Your task to perform on an android device: Add "panasonic triple a" to the cart on newegg Image 0: 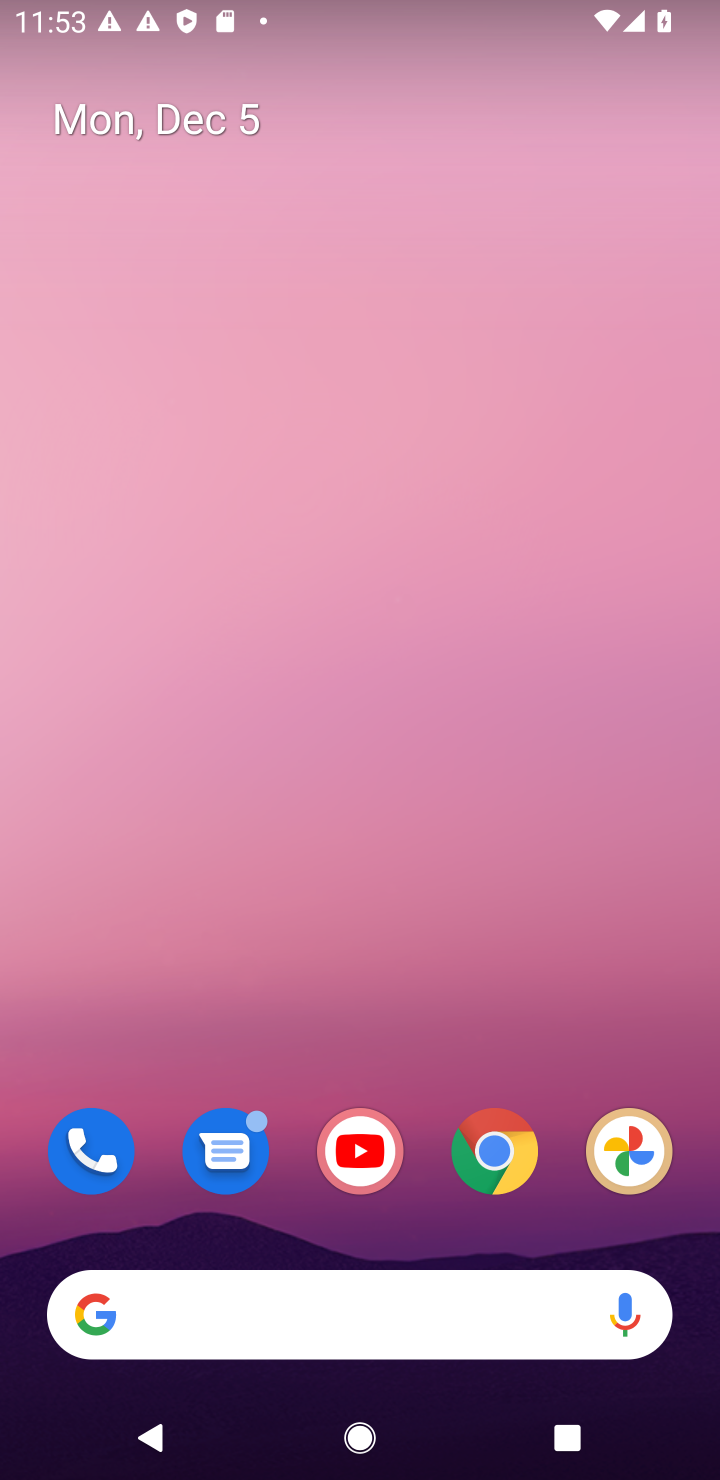
Step 0: click (487, 1165)
Your task to perform on an android device: Add "panasonic triple a" to the cart on newegg Image 1: 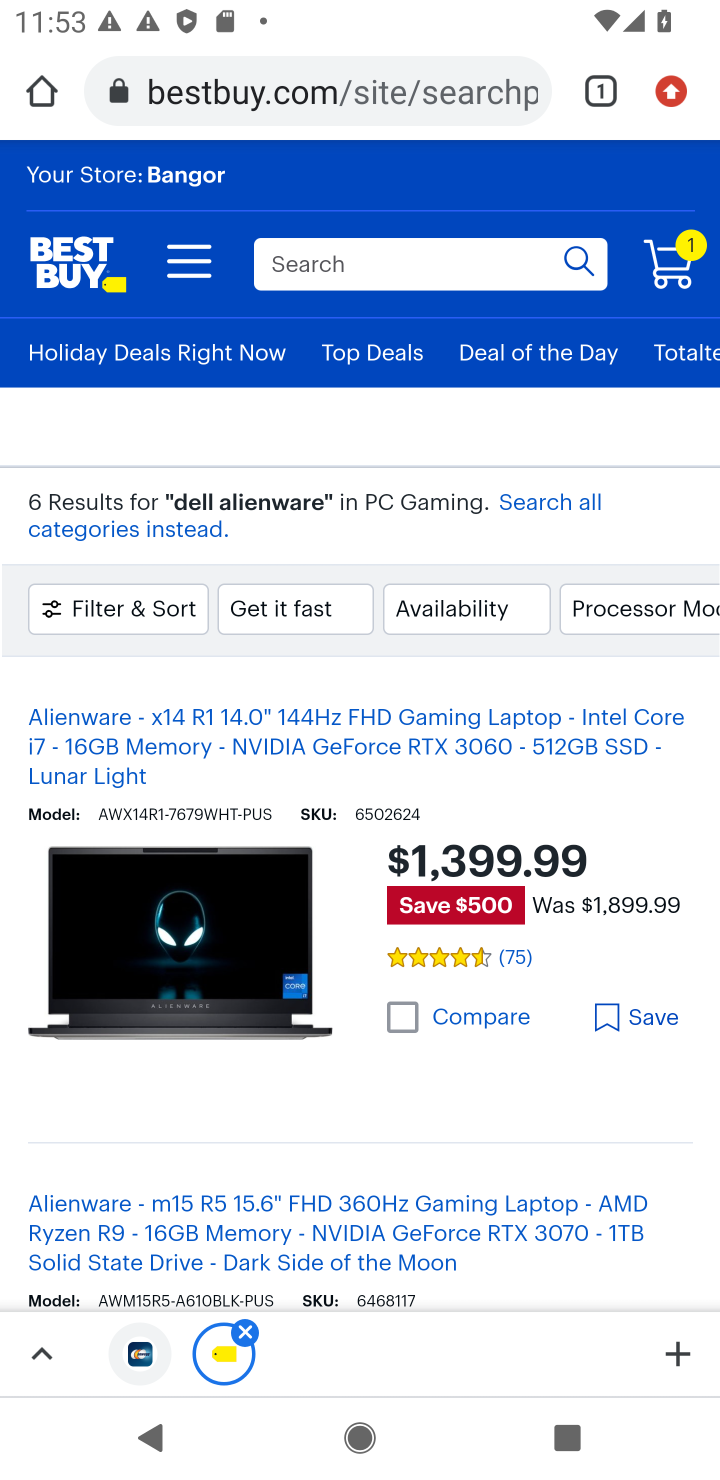
Step 1: click (265, 85)
Your task to perform on an android device: Add "panasonic triple a" to the cart on newegg Image 2: 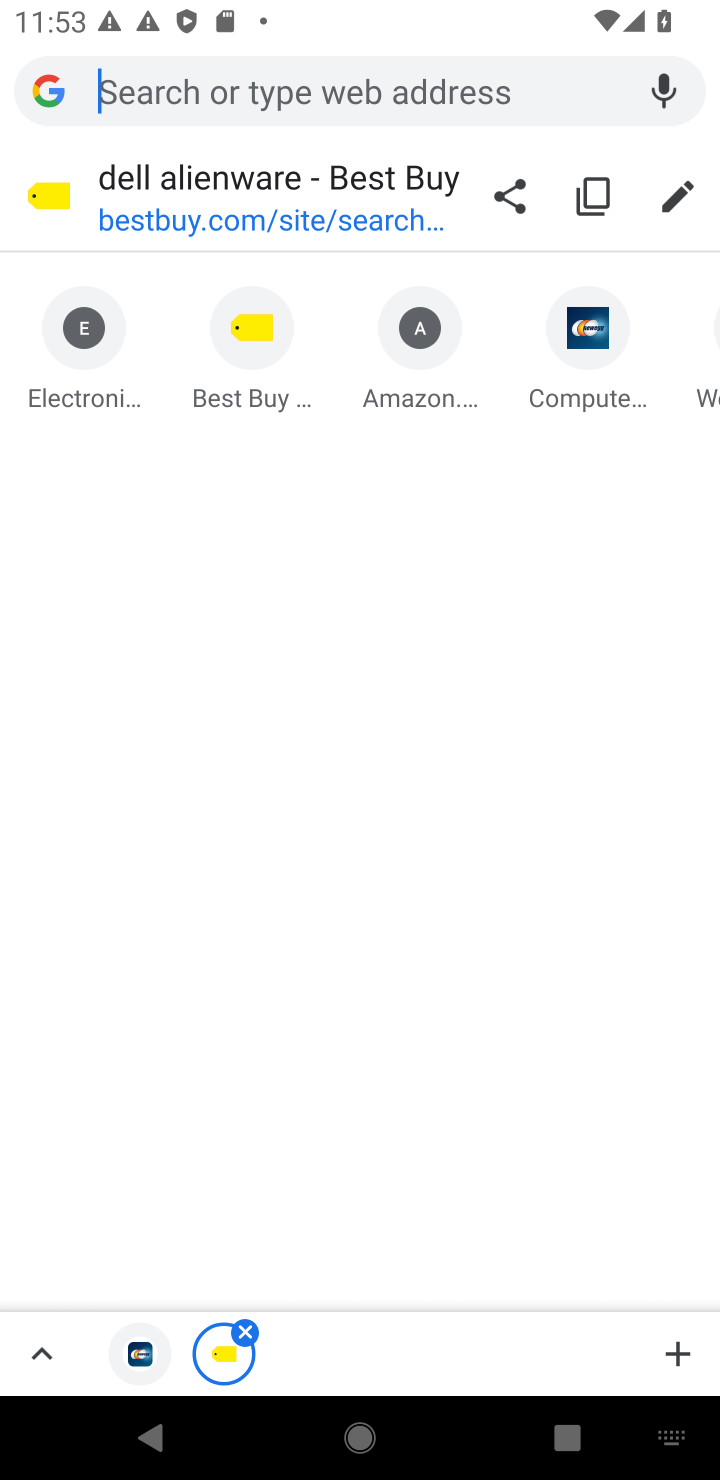
Step 2: click (594, 385)
Your task to perform on an android device: Add "panasonic triple a" to the cart on newegg Image 3: 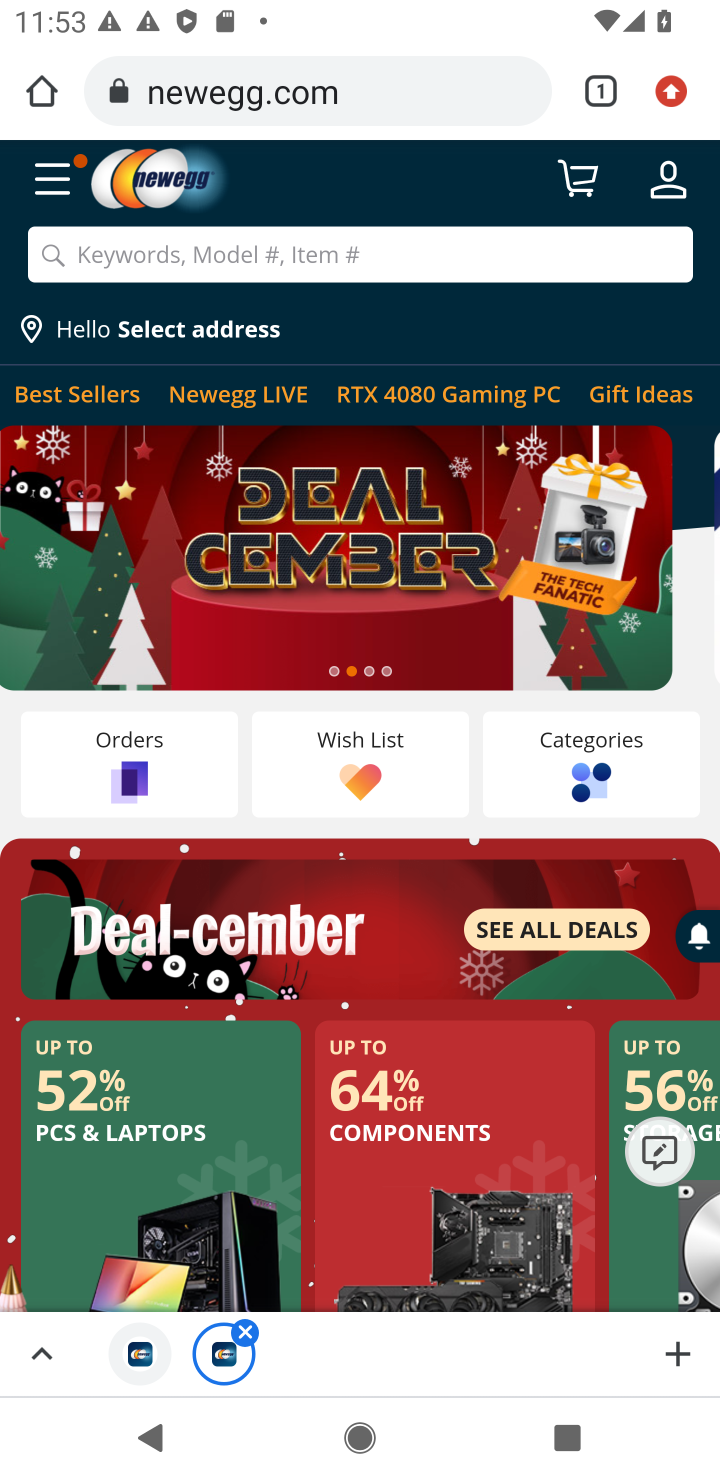
Step 3: click (190, 269)
Your task to perform on an android device: Add "panasonic triple a" to the cart on newegg Image 4: 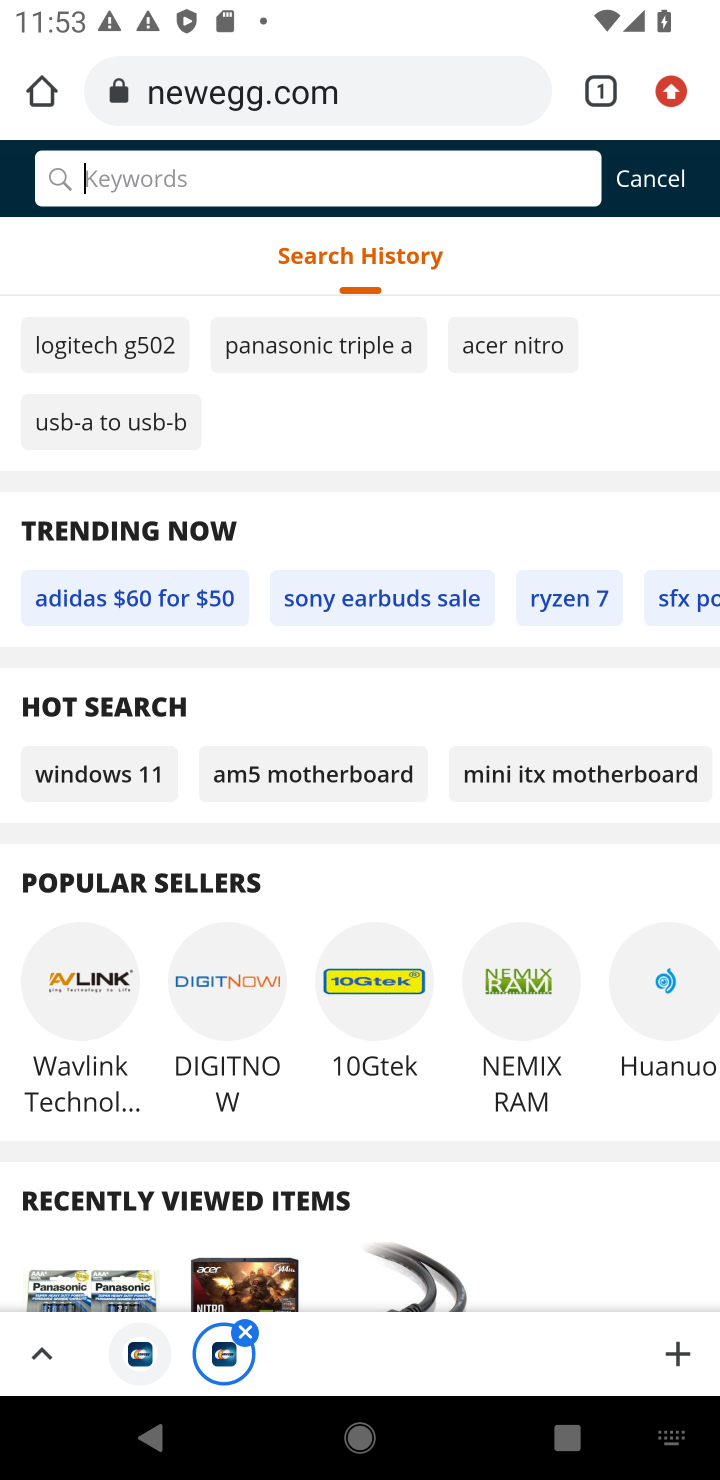
Step 4: type "panasonic triple a"
Your task to perform on an android device: Add "panasonic triple a" to the cart on newegg Image 5: 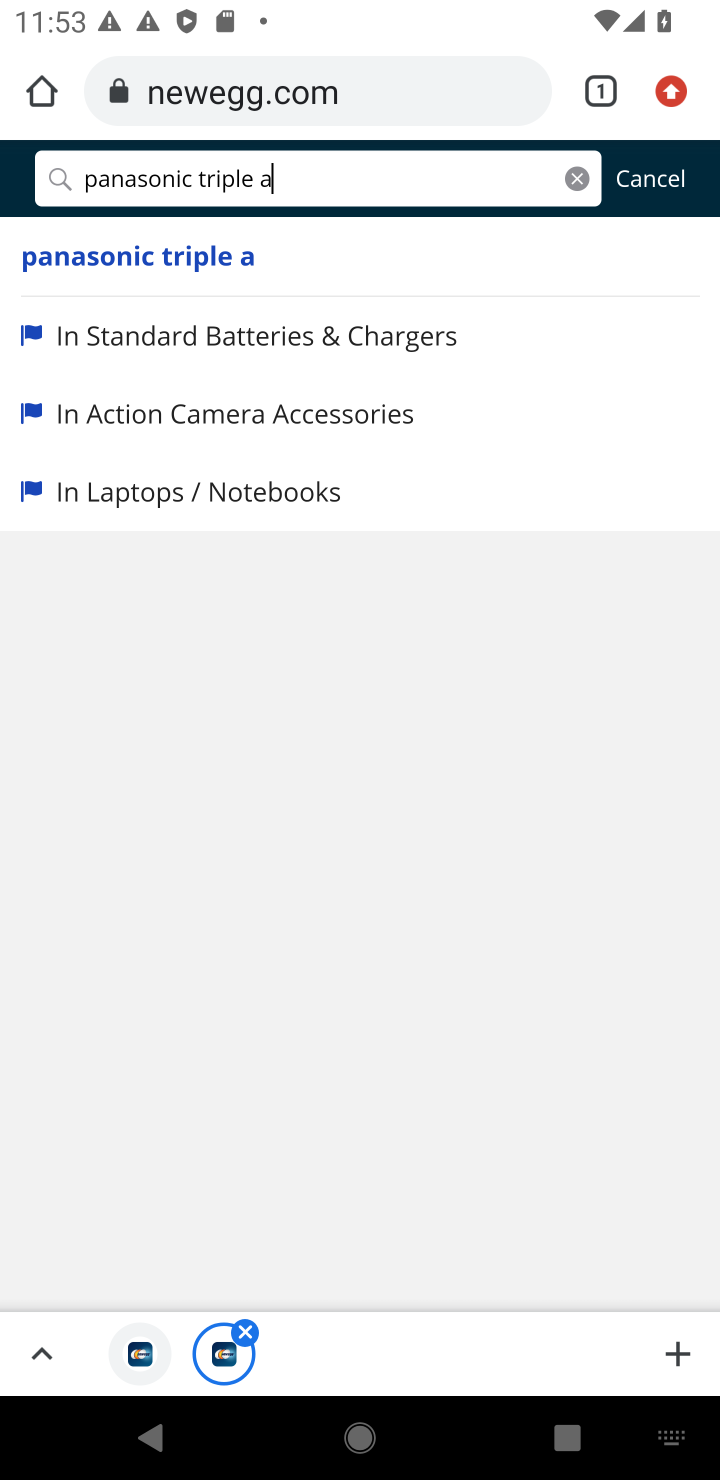
Step 5: click (179, 284)
Your task to perform on an android device: Add "panasonic triple a" to the cart on newegg Image 6: 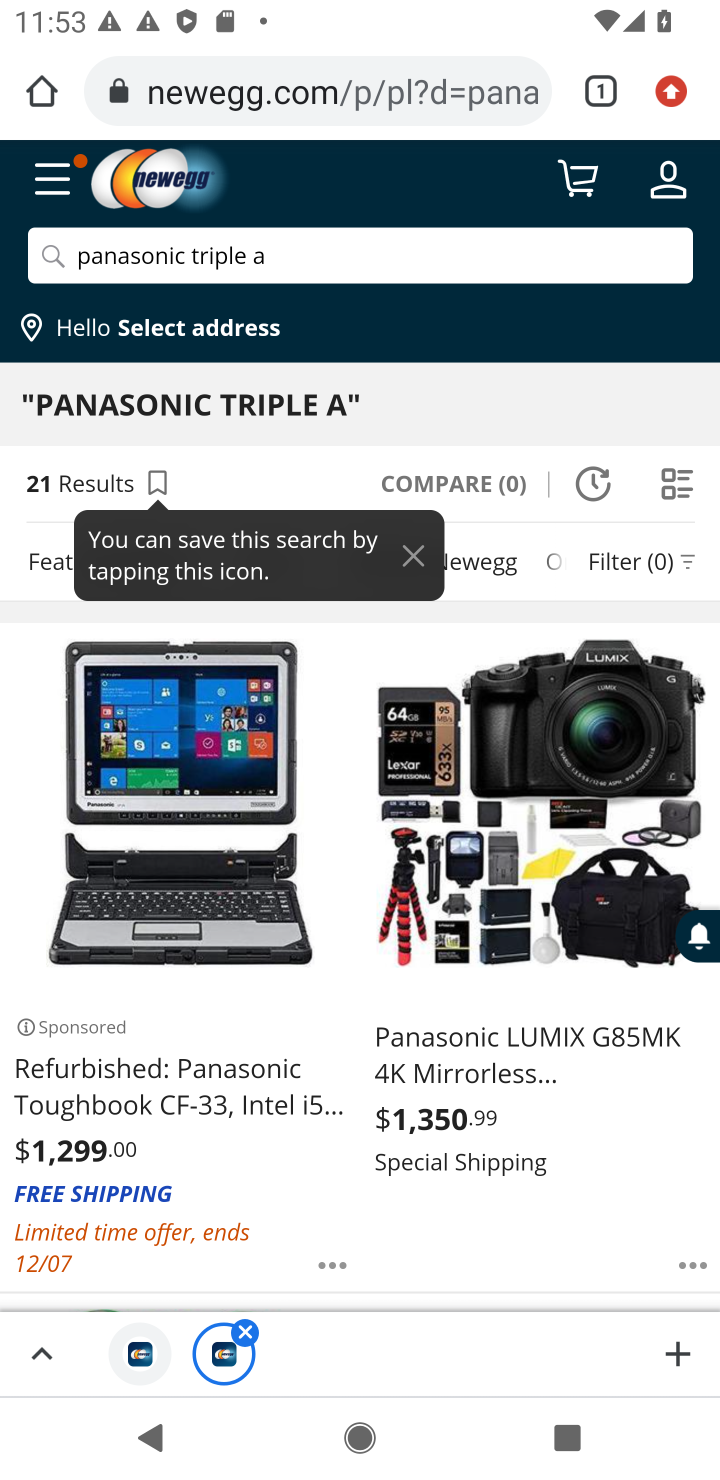
Step 6: drag from (265, 879) to (302, 523)
Your task to perform on an android device: Add "panasonic triple a" to the cart on newegg Image 7: 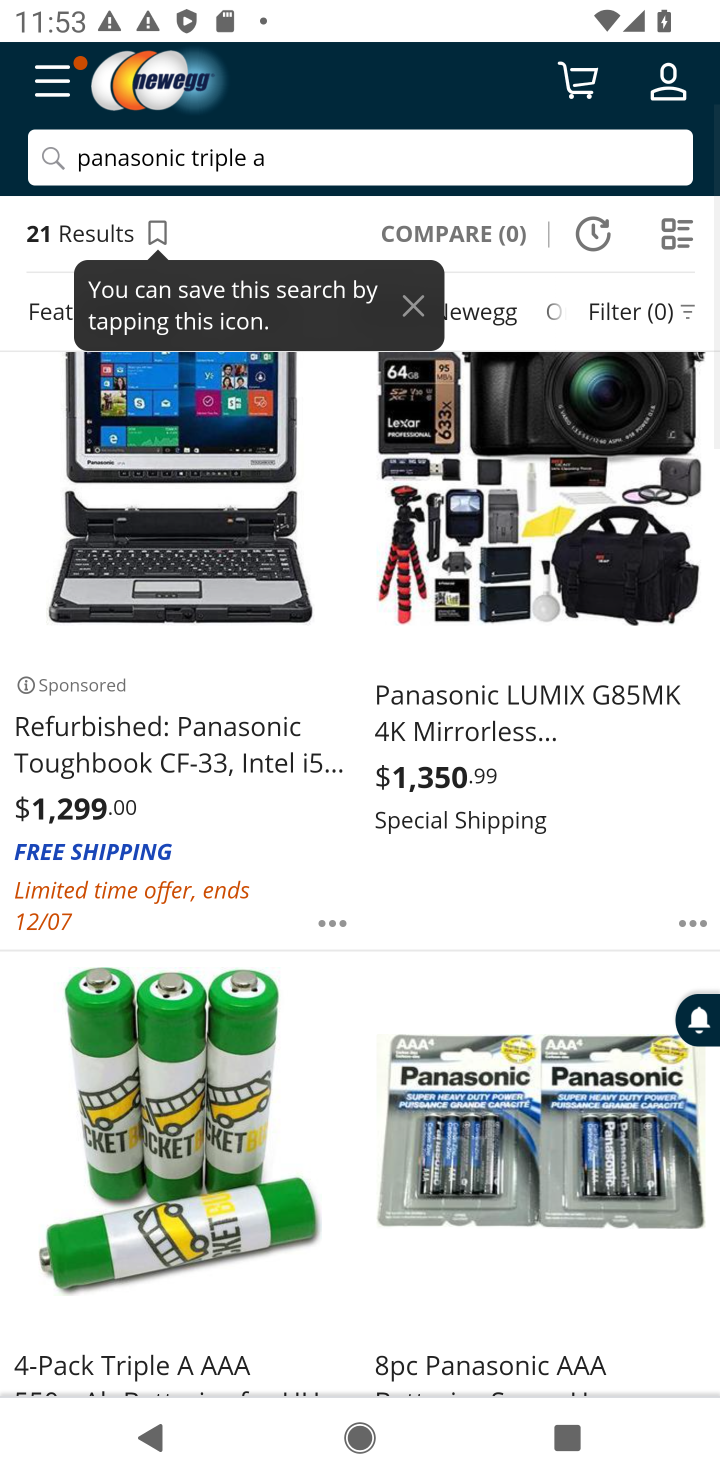
Step 7: drag from (277, 766) to (294, 550)
Your task to perform on an android device: Add "panasonic triple a" to the cart on newegg Image 8: 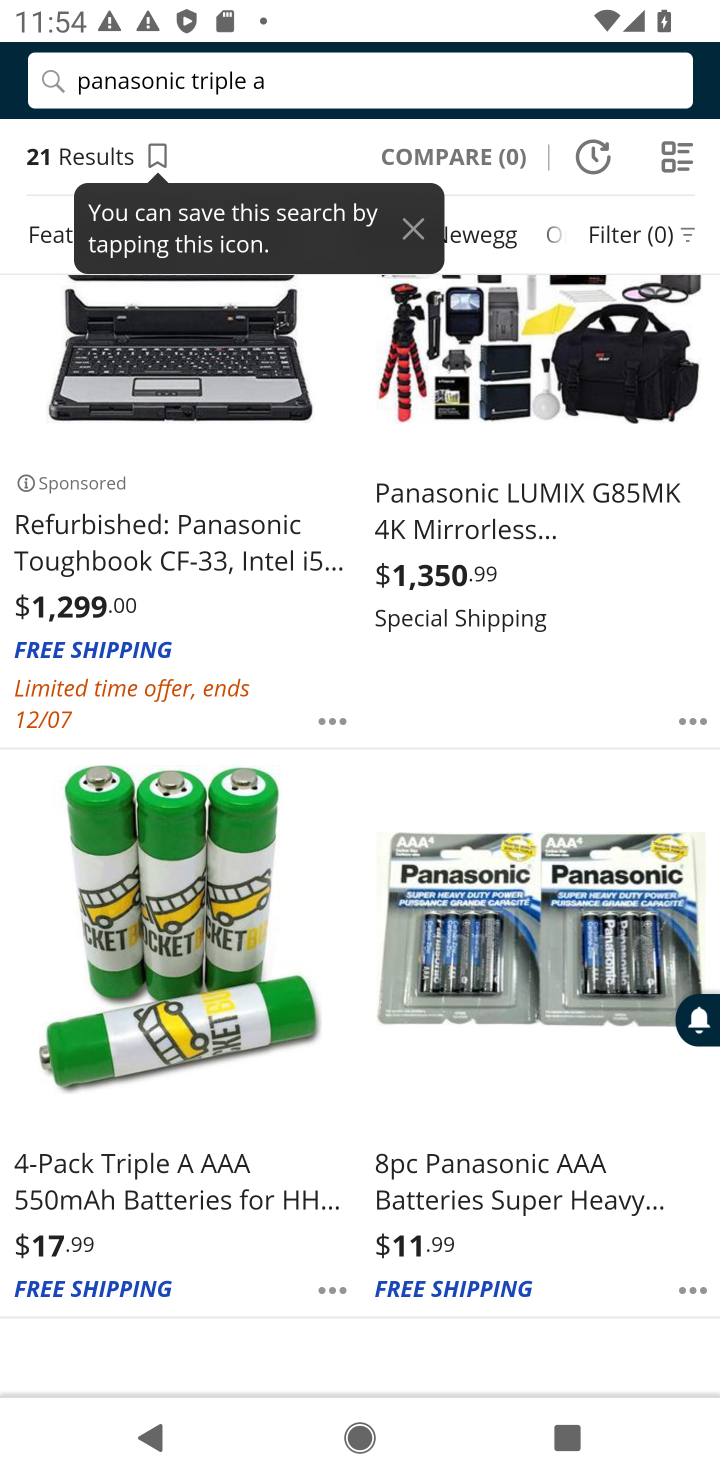
Step 8: click (521, 987)
Your task to perform on an android device: Add "panasonic triple a" to the cart on newegg Image 9: 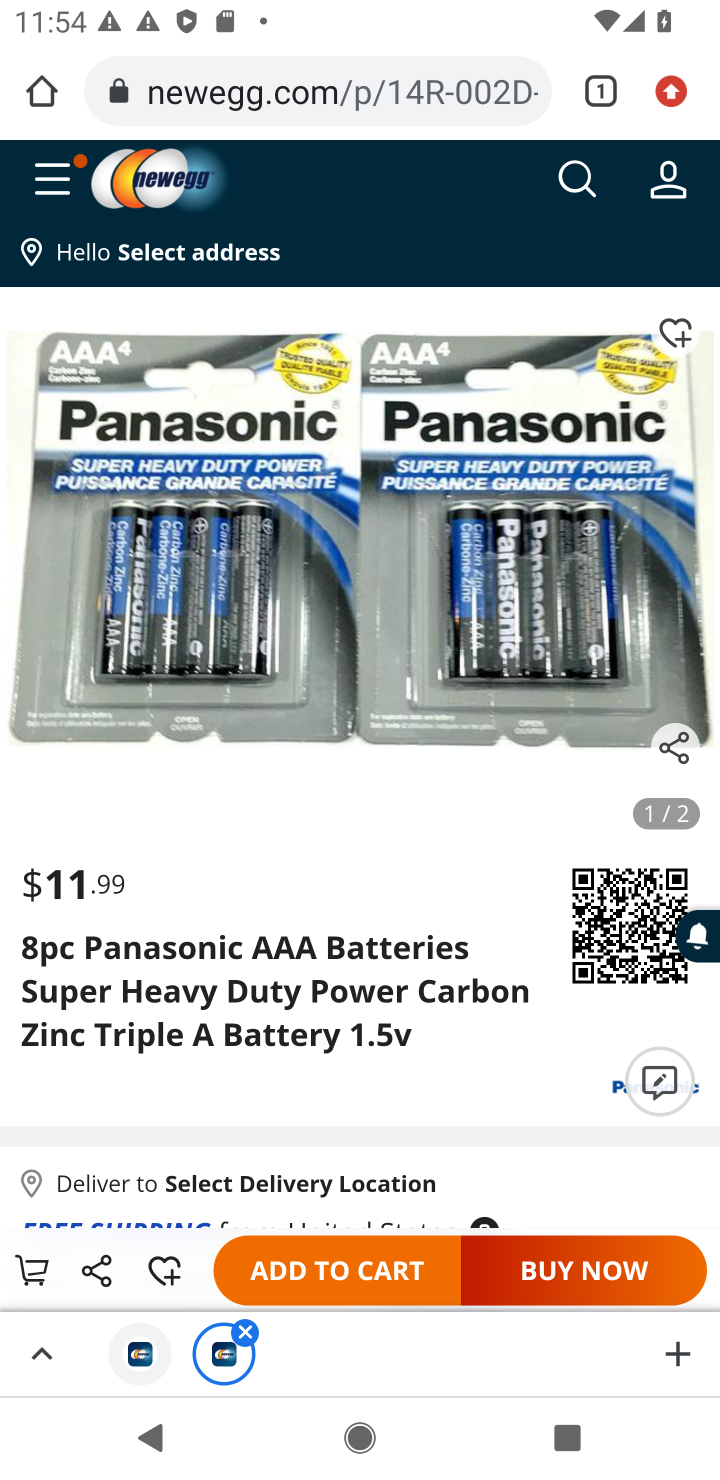
Step 9: click (358, 1279)
Your task to perform on an android device: Add "panasonic triple a" to the cart on newegg Image 10: 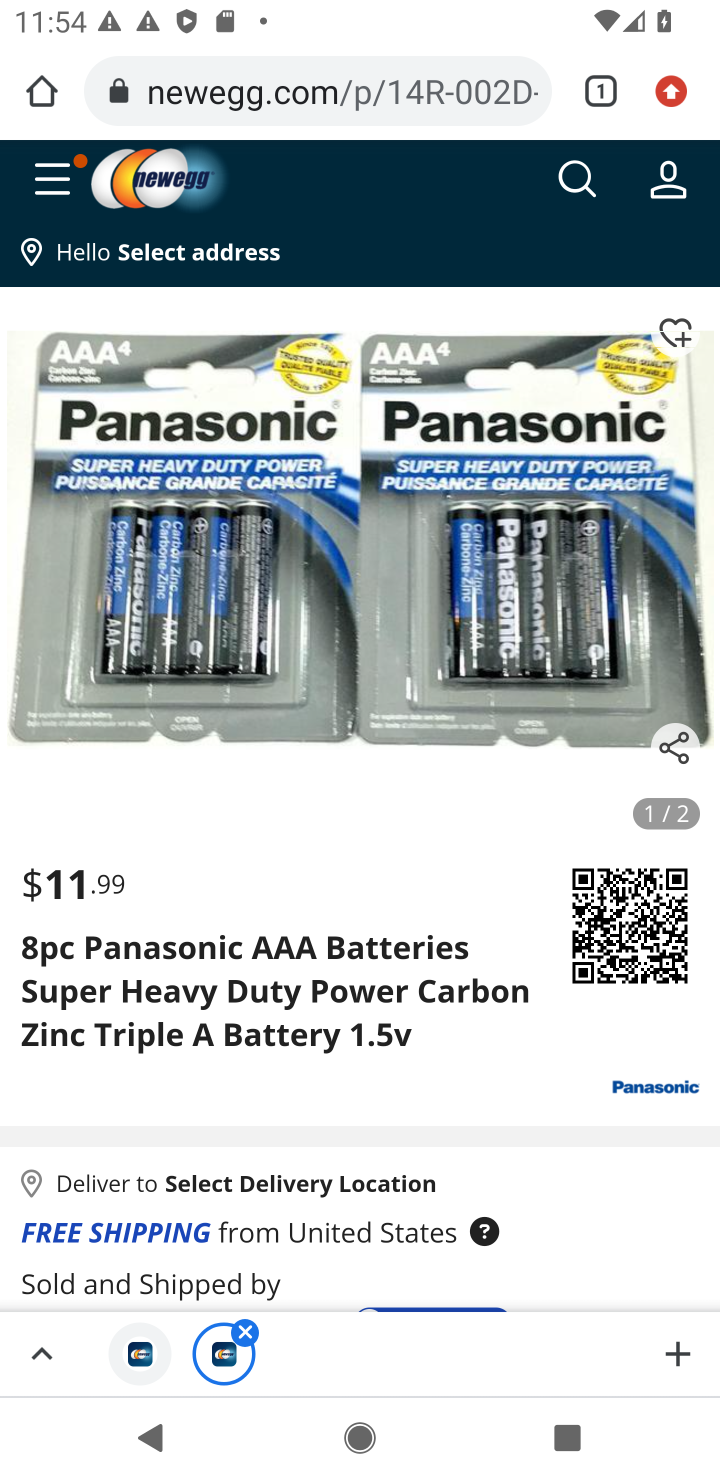
Step 10: drag from (426, 1130) to (445, 935)
Your task to perform on an android device: Add "panasonic triple a" to the cart on newegg Image 11: 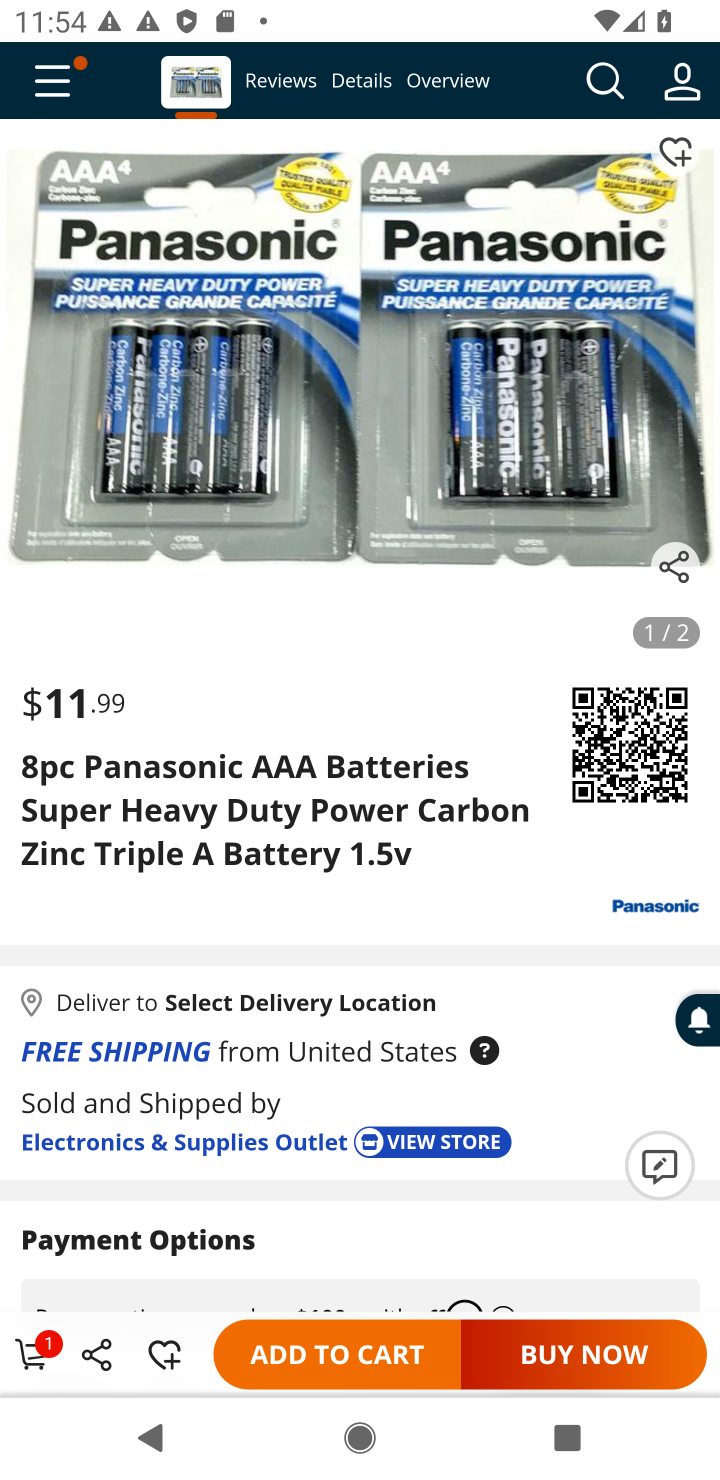
Step 11: click (319, 1351)
Your task to perform on an android device: Add "panasonic triple a" to the cart on newegg Image 12: 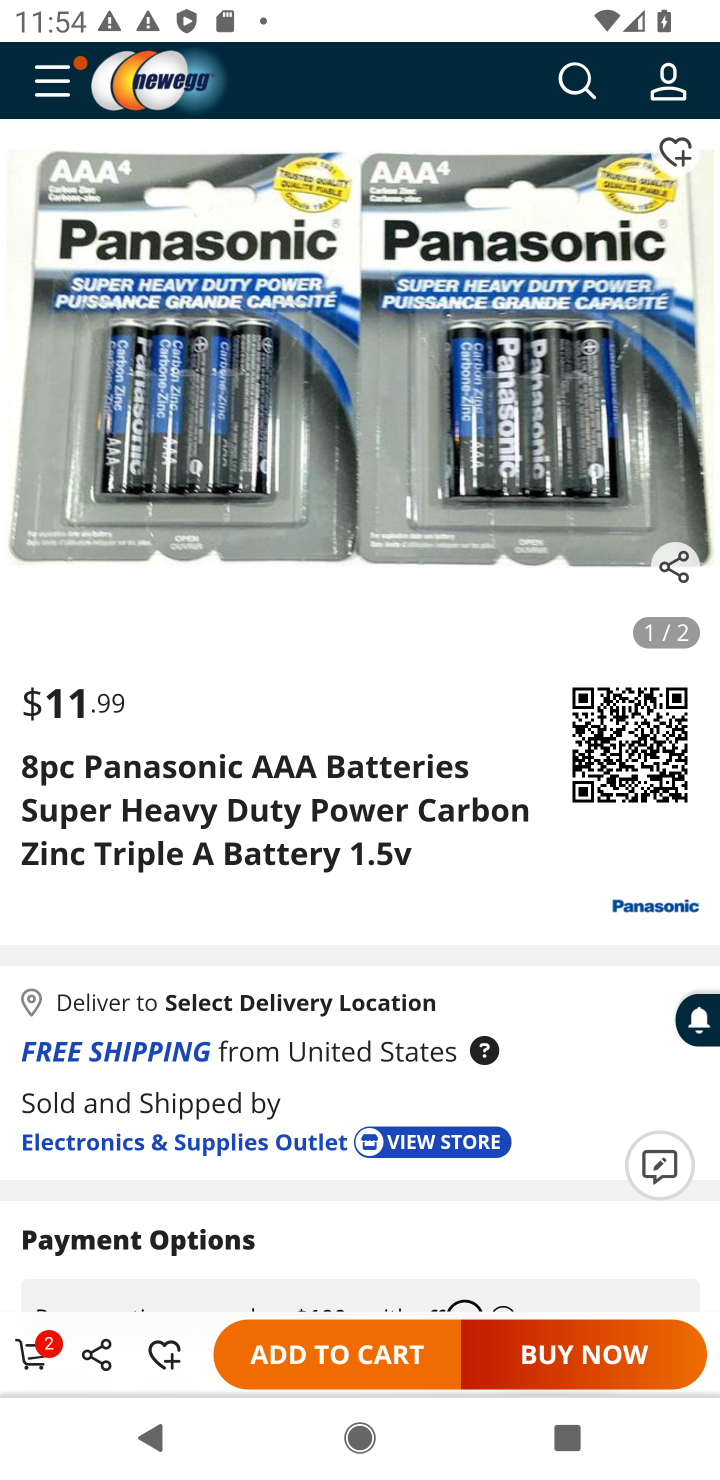
Step 12: task complete